Your task to perform on an android device: visit the assistant section in the google photos Image 0: 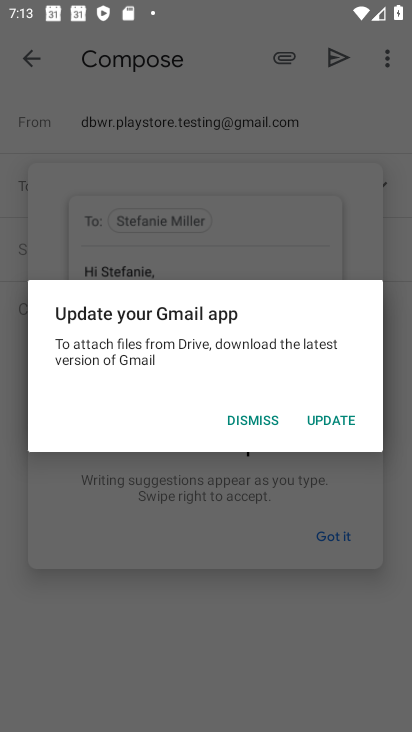
Step 0: press home button
Your task to perform on an android device: visit the assistant section in the google photos Image 1: 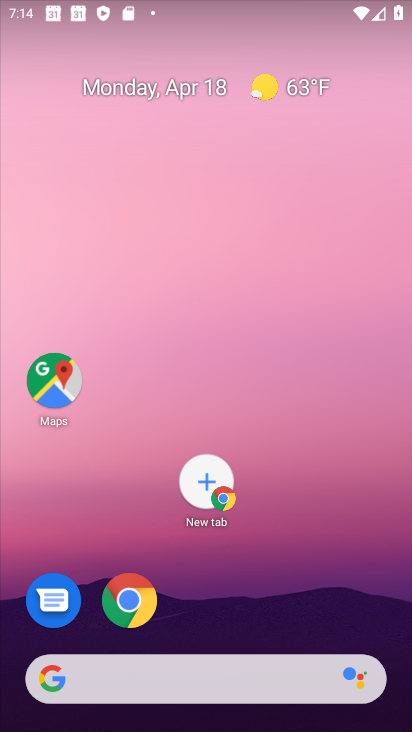
Step 1: drag from (280, 631) to (335, 0)
Your task to perform on an android device: visit the assistant section in the google photos Image 2: 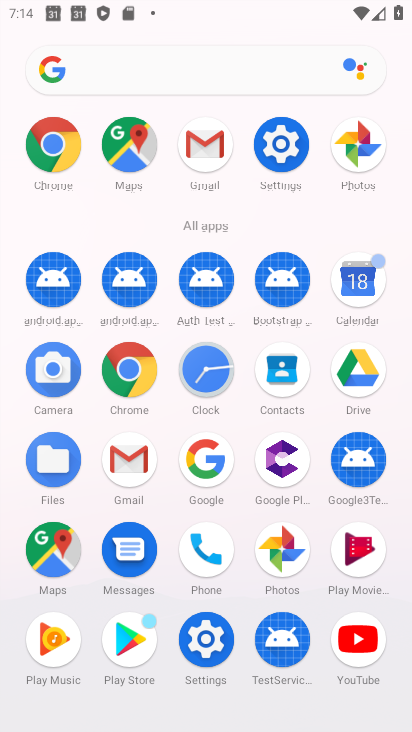
Step 2: click (356, 155)
Your task to perform on an android device: visit the assistant section in the google photos Image 3: 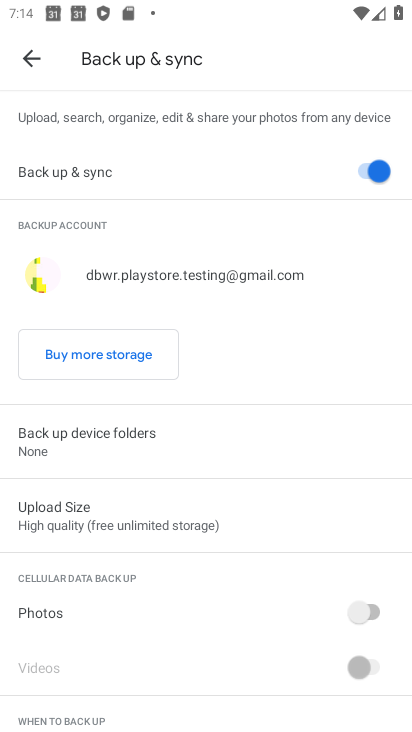
Step 3: click (29, 59)
Your task to perform on an android device: visit the assistant section in the google photos Image 4: 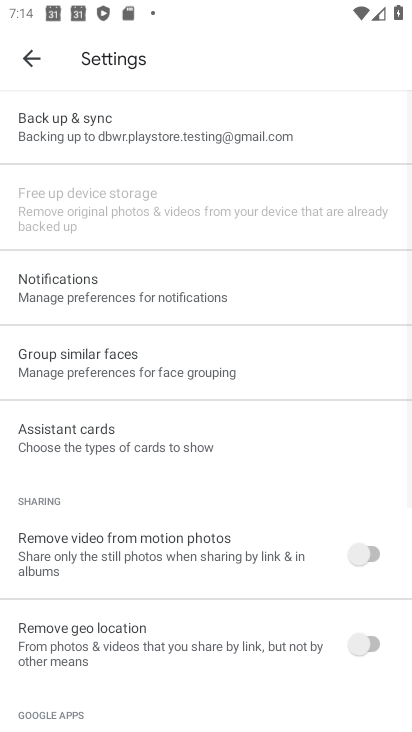
Step 4: click (29, 59)
Your task to perform on an android device: visit the assistant section in the google photos Image 5: 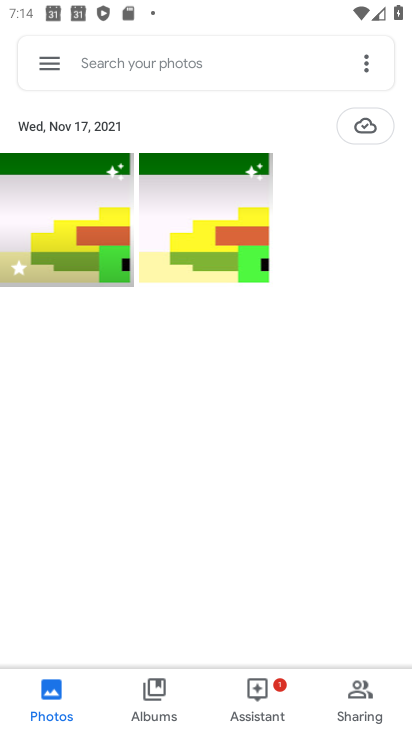
Step 5: click (255, 686)
Your task to perform on an android device: visit the assistant section in the google photos Image 6: 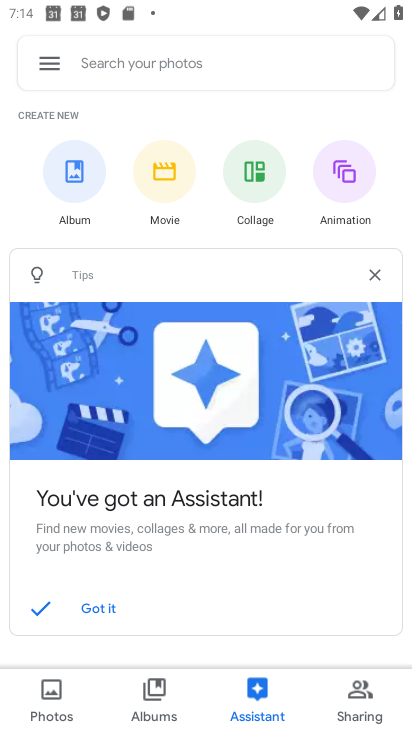
Step 6: task complete